Your task to perform on an android device: change the upload size in google photos Image 0: 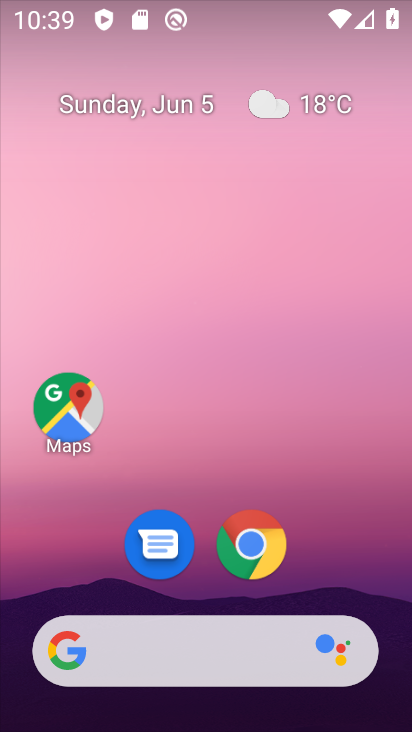
Step 0: drag from (157, 622) to (158, 273)
Your task to perform on an android device: change the upload size in google photos Image 1: 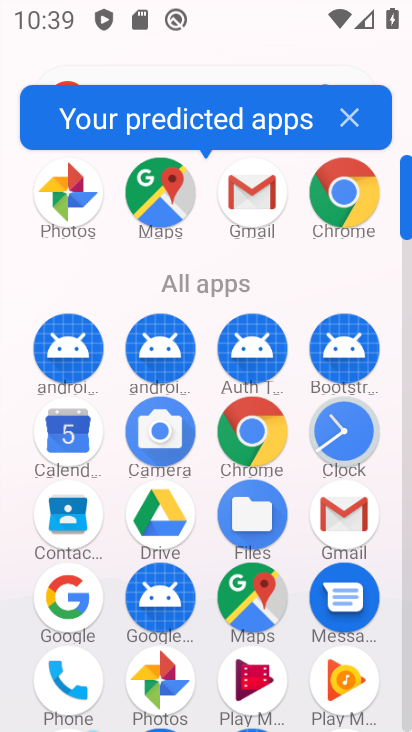
Step 1: click (169, 674)
Your task to perform on an android device: change the upload size in google photos Image 2: 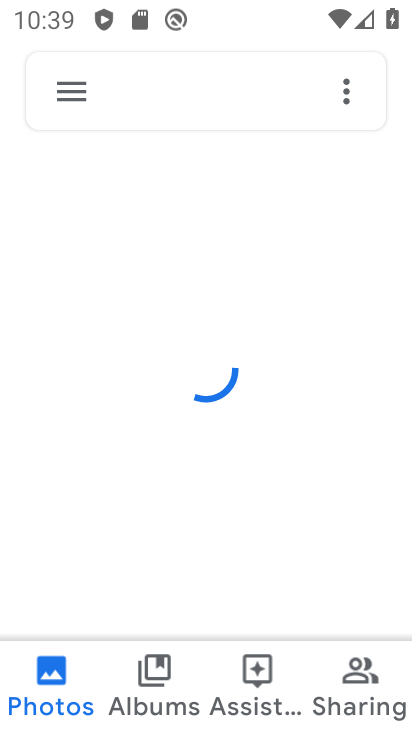
Step 2: click (65, 96)
Your task to perform on an android device: change the upload size in google photos Image 3: 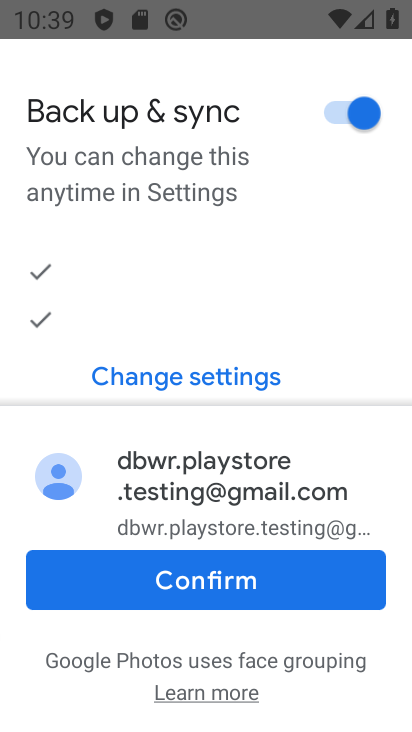
Step 3: click (199, 591)
Your task to perform on an android device: change the upload size in google photos Image 4: 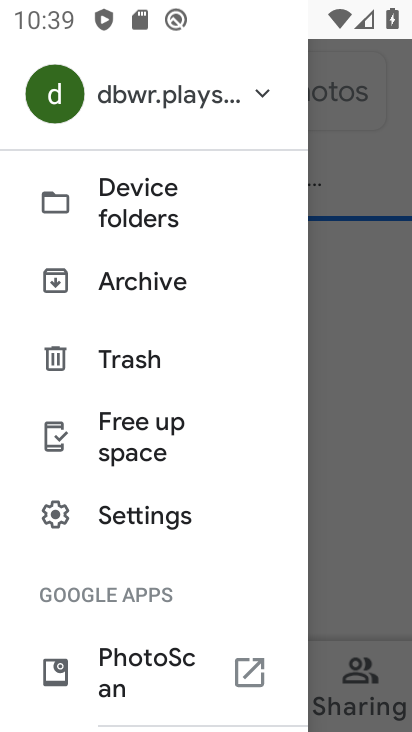
Step 4: click (155, 515)
Your task to perform on an android device: change the upload size in google photos Image 5: 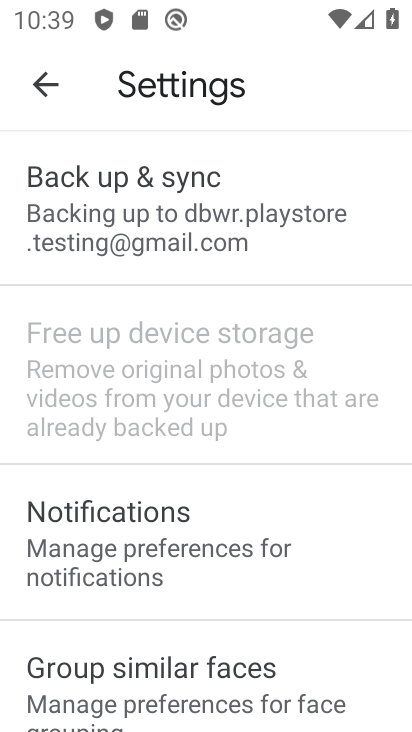
Step 5: drag from (206, 690) to (160, 323)
Your task to perform on an android device: change the upload size in google photos Image 6: 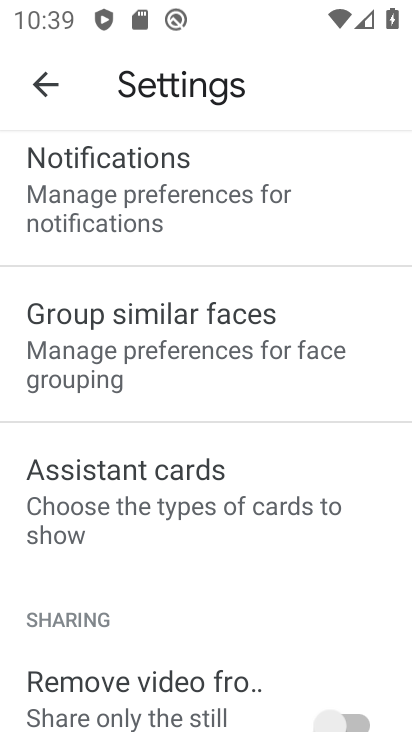
Step 6: drag from (166, 188) to (193, 577)
Your task to perform on an android device: change the upload size in google photos Image 7: 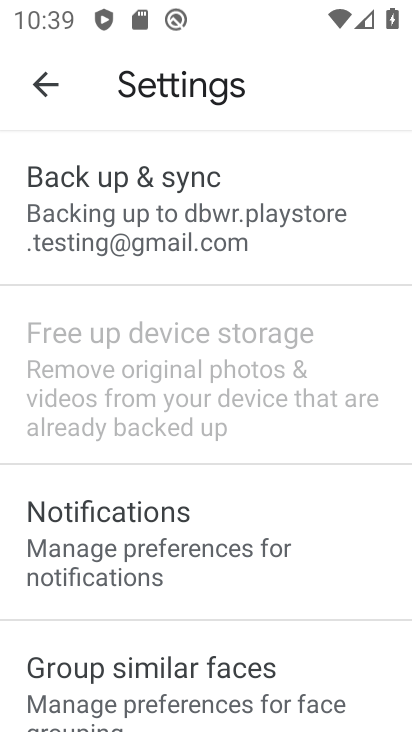
Step 7: click (112, 210)
Your task to perform on an android device: change the upload size in google photos Image 8: 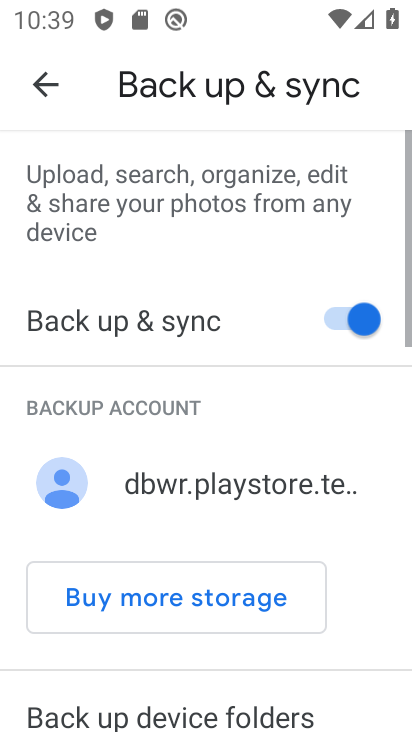
Step 8: drag from (186, 658) to (126, 372)
Your task to perform on an android device: change the upload size in google photos Image 9: 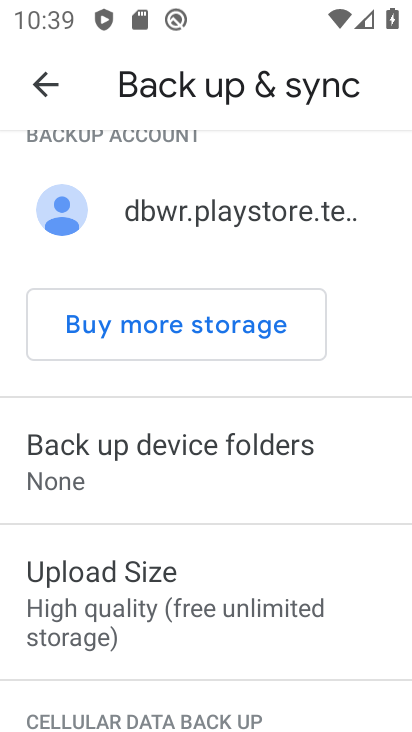
Step 9: click (162, 611)
Your task to perform on an android device: change the upload size in google photos Image 10: 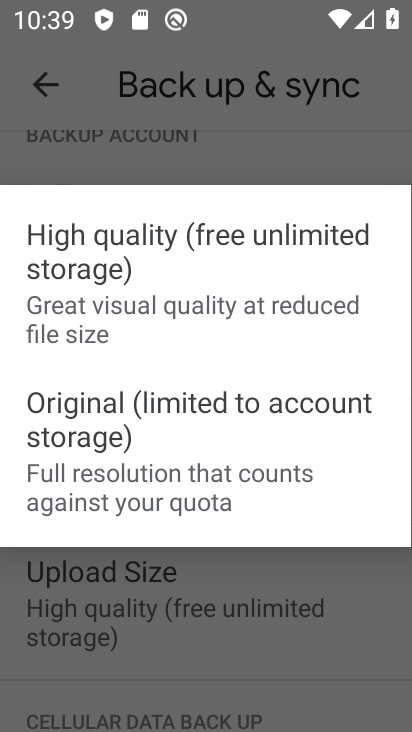
Step 10: click (98, 418)
Your task to perform on an android device: change the upload size in google photos Image 11: 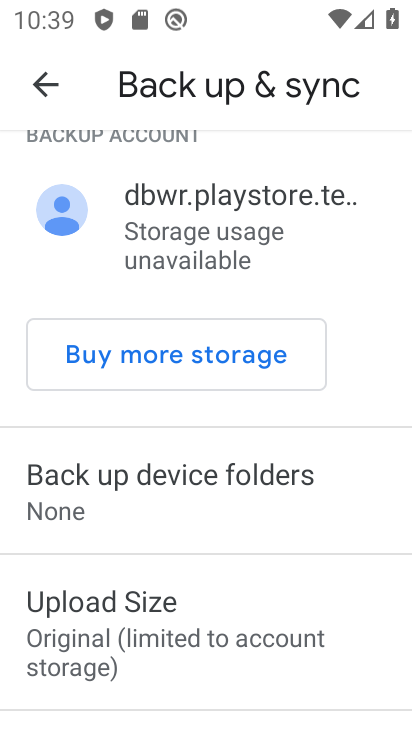
Step 11: task complete